Your task to perform on an android device: turn on data saver in the chrome app Image 0: 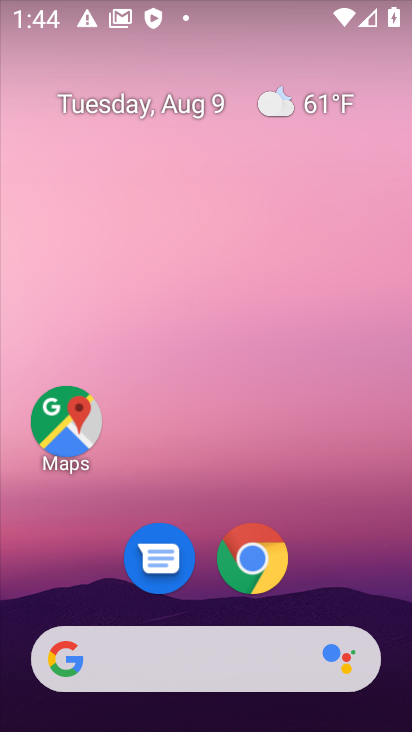
Step 0: click (231, 557)
Your task to perform on an android device: turn on data saver in the chrome app Image 1: 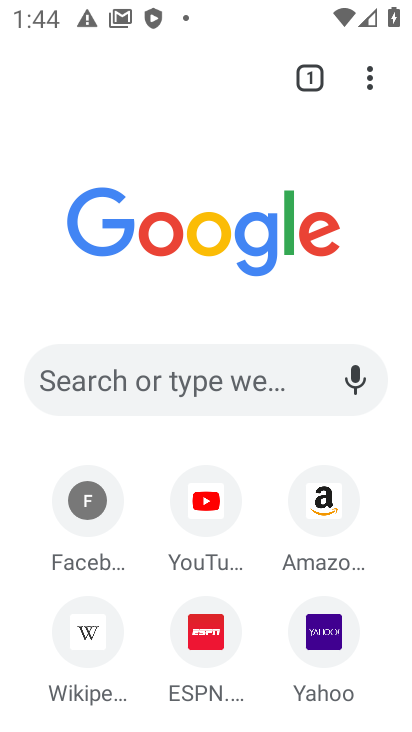
Step 1: click (370, 81)
Your task to perform on an android device: turn on data saver in the chrome app Image 2: 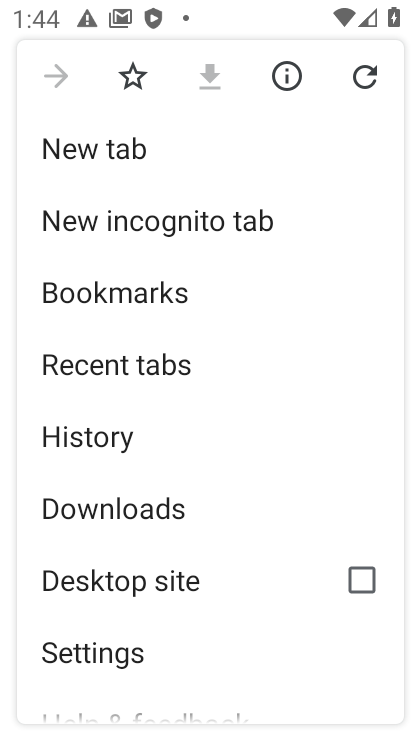
Step 2: click (97, 660)
Your task to perform on an android device: turn on data saver in the chrome app Image 3: 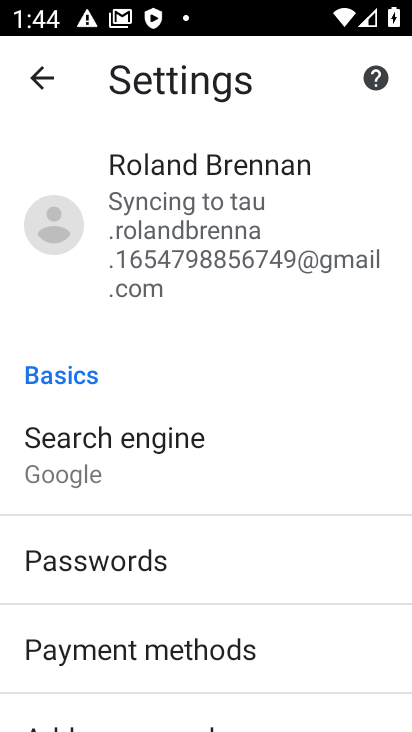
Step 3: drag from (113, 637) to (183, 348)
Your task to perform on an android device: turn on data saver in the chrome app Image 4: 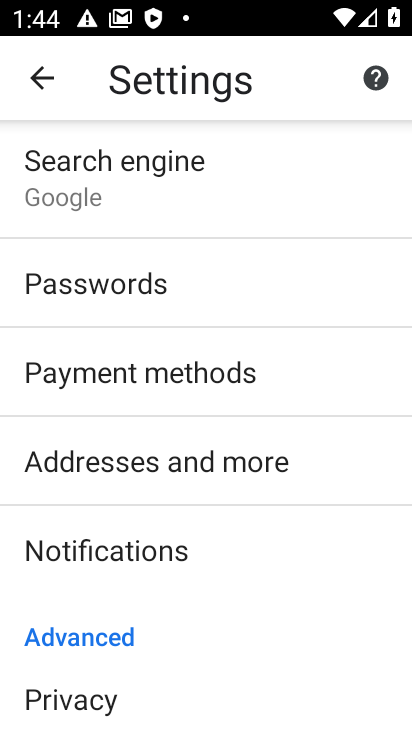
Step 4: drag from (142, 660) to (174, 374)
Your task to perform on an android device: turn on data saver in the chrome app Image 5: 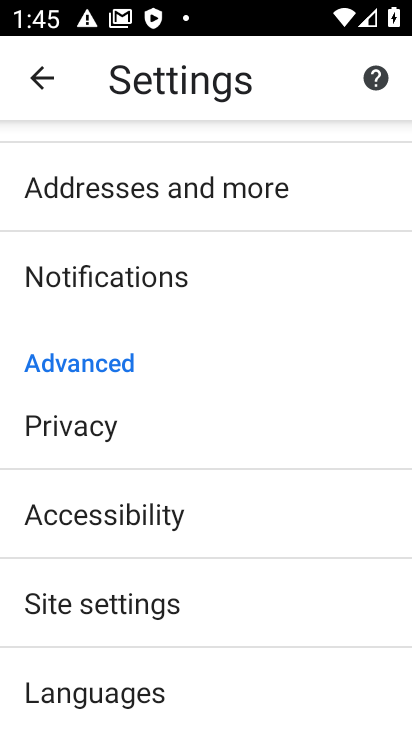
Step 5: drag from (145, 621) to (145, 342)
Your task to perform on an android device: turn on data saver in the chrome app Image 6: 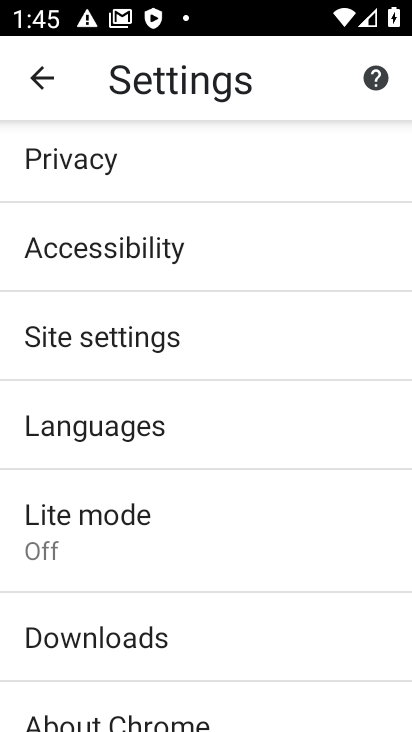
Step 6: click (113, 531)
Your task to perform on an android device: turn on data saver in the chrome app Image 7: 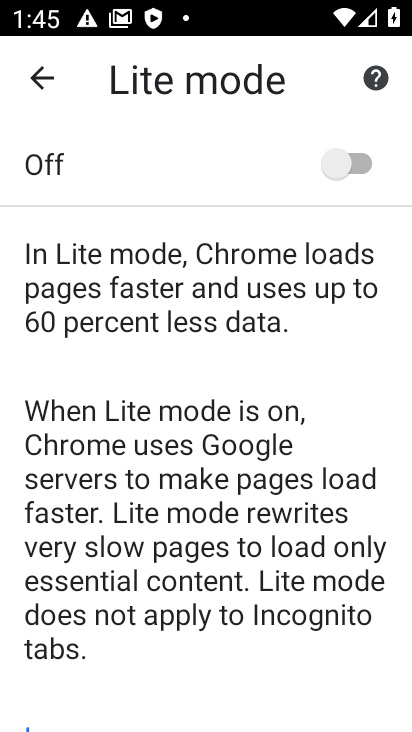
Step 7: click (362, 161)
Your task to perform on an android device: turn on data saver in the chrome app Image 8: 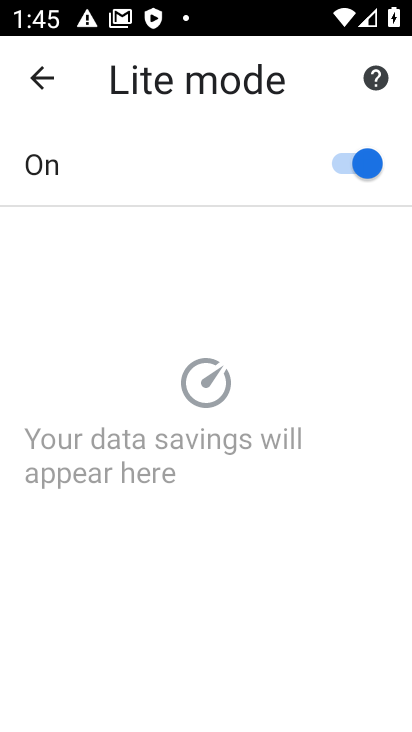
Step 8: task complete